Your task to perform on an android device: empty trash in the gmail app Image 0: 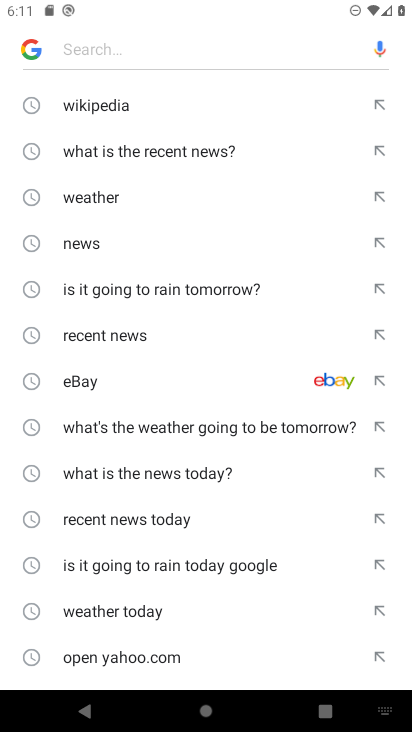
Step 0: press home button
Your task to perform on an android device: empty trash in the gmail app Image 1: 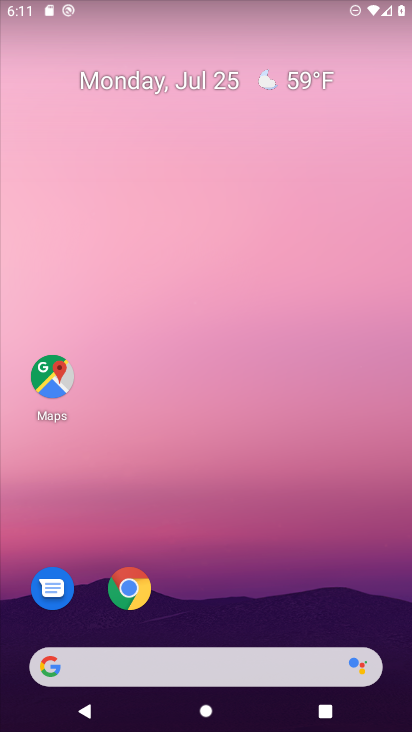
Step 1: drag from (264, 522) to (297, 184)
Your task to perform on an android device: empty trash in the gmail app Image 2: 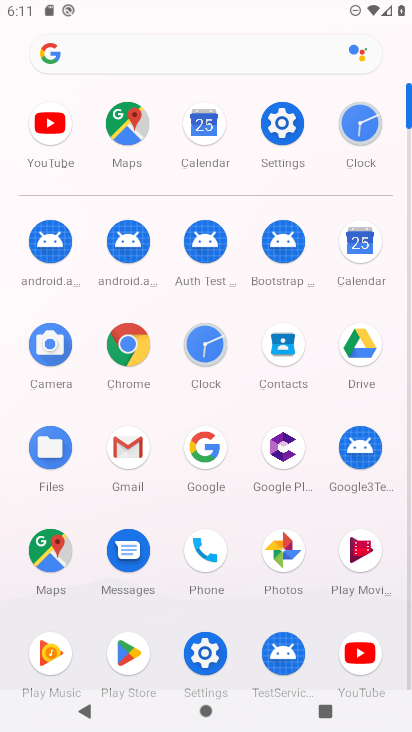
Step 2: click (123, 450)
Your task to perform on an android device: empty trash in the gmail app Image 3: 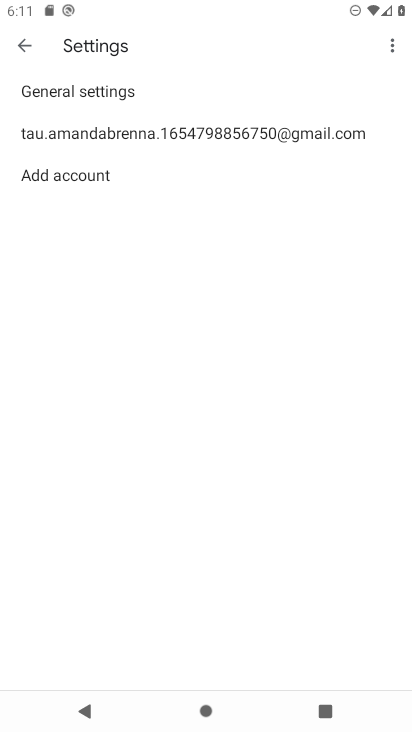
Step 3: click (23, 43)
Your task to perform on an android device: empty trash in the gmail app Image 4: 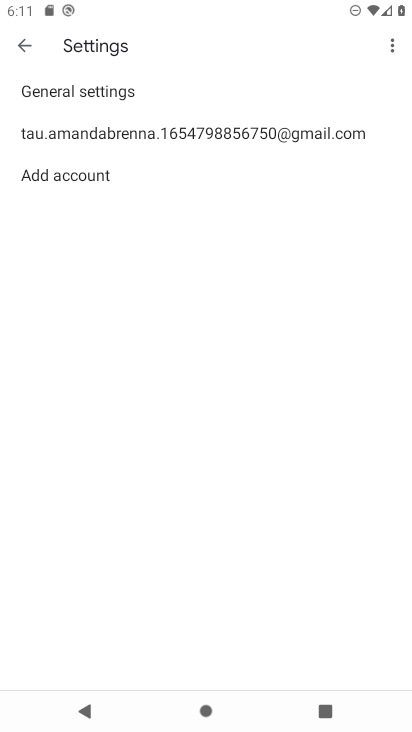
Step 4: click (19, 44)
Your task to perform on an android device: empty trash in the gmail app Image 5: 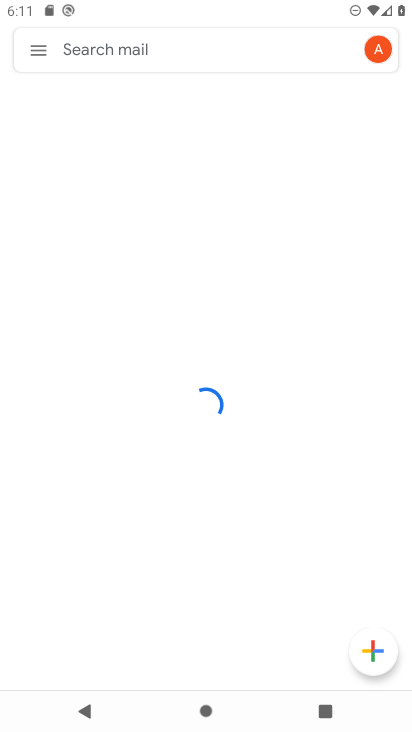
Step 5: click (45, 57)
Your task to perform on an android device: empty trash in the gmail app Image 6: 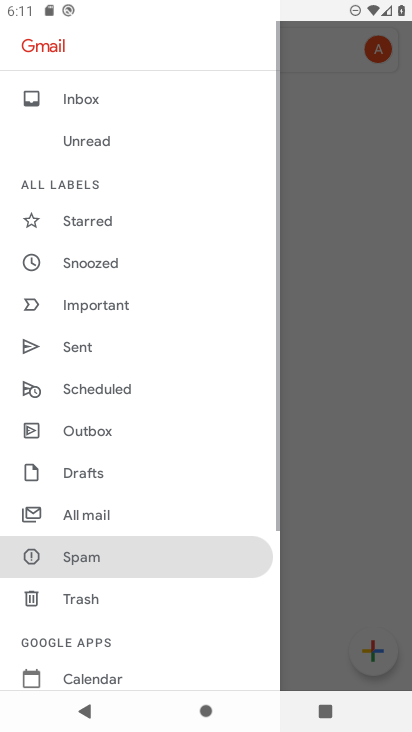
Step 6: click (83, 596)
Your task to perform on an android device: empty trash in the gmail app Image 7: 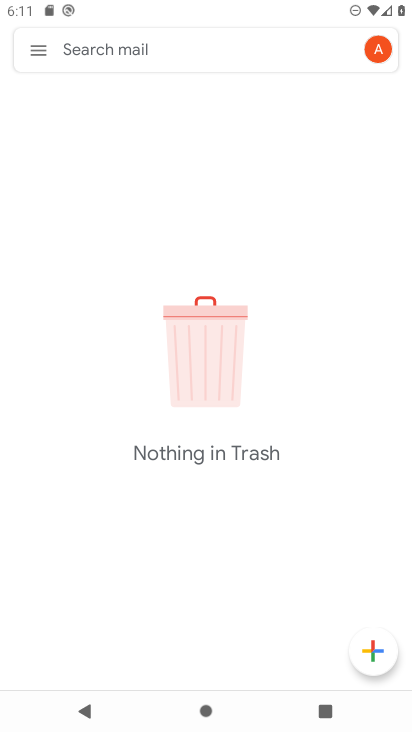
Step 7: task complete